Your task to perform on an android device: Open Google Chrome Image 0: 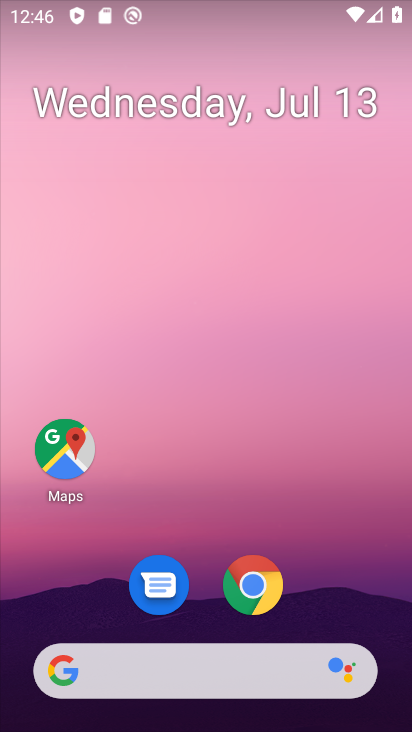
Step 0: click (258, 592)
Your task to perform on an android device: Open Google Chrome Image 1: 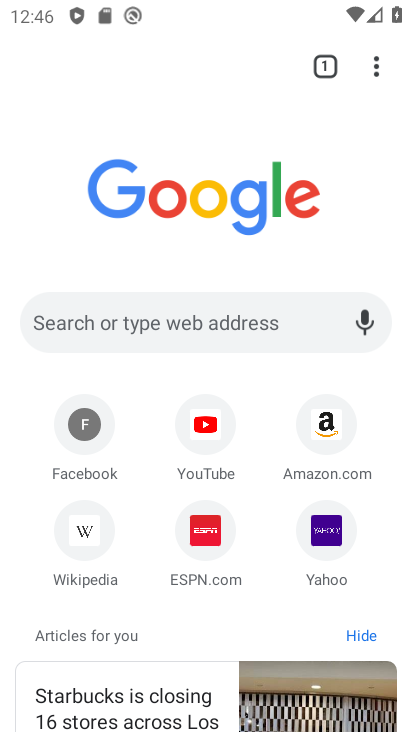
Step 1: task complete